Your task to perform on an android device: change the clock style Image 0: 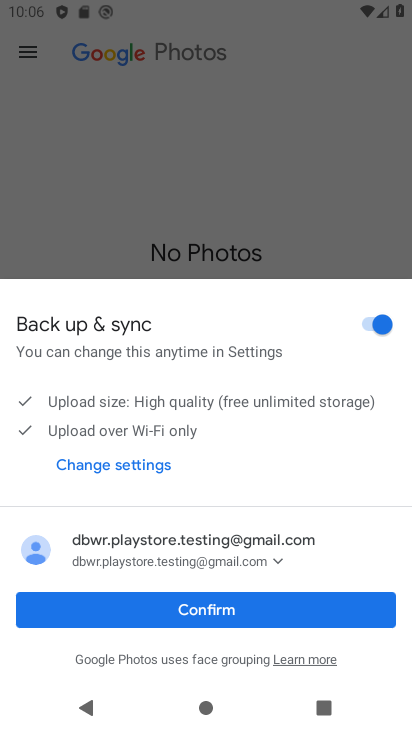
Step 0: press home button
Your task to perform on an android device: change the clock style Image 1: 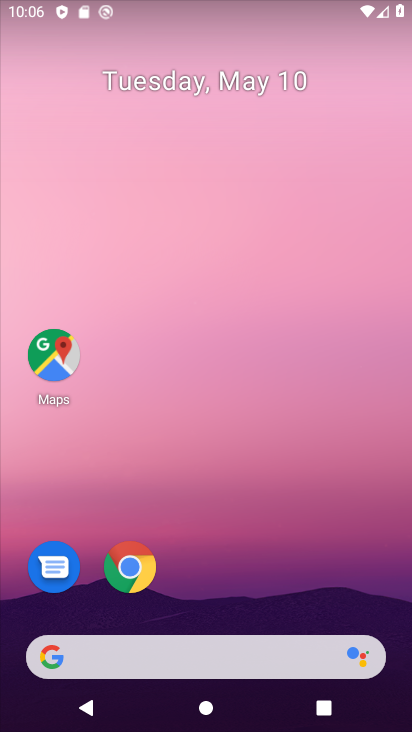
Step 1: drag from (204, 548) to (306, 30)
Your task to perform on an android device: change the clock style Image 2: 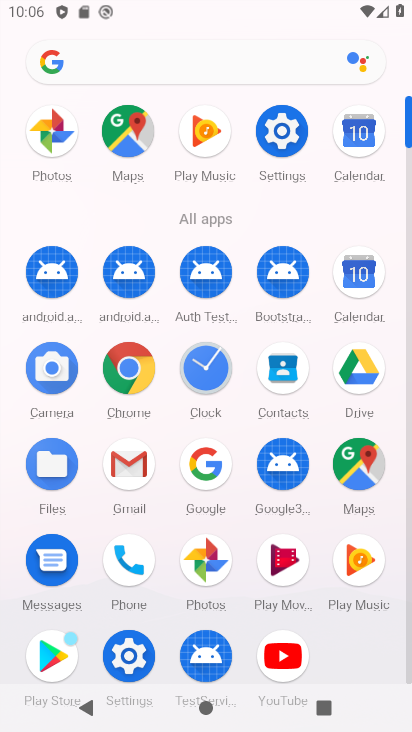
Step 2: click (196, 363)
Your task to perform on an android device: change the clock style Image 3: 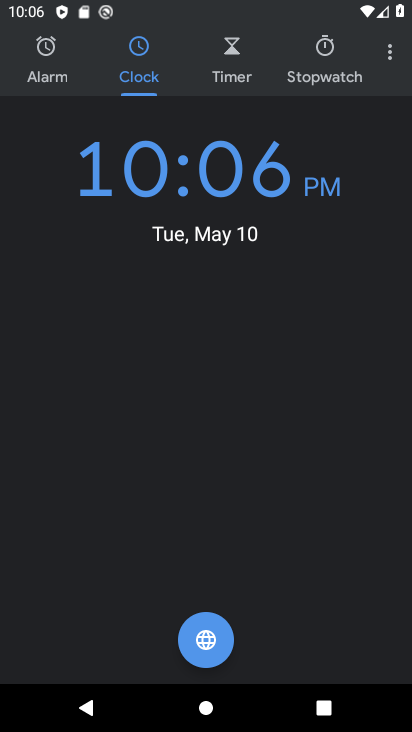
Step 3: click (390, 47)
Your task to perform on an android device: change the clock style Image 4: 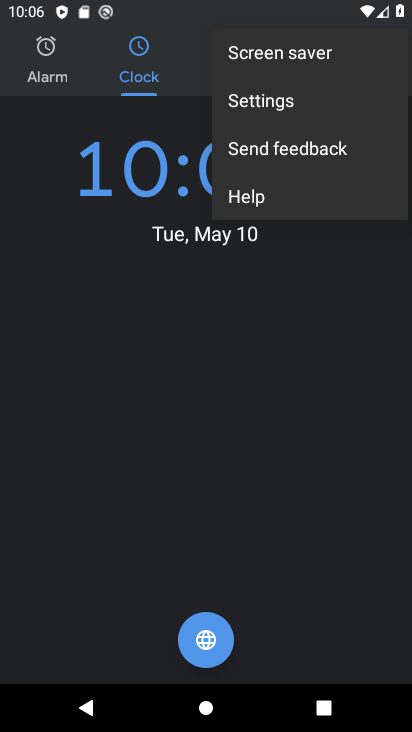
Step 4: click (267, 111)
Your task to perform on an android device: change the clock style Image 5: 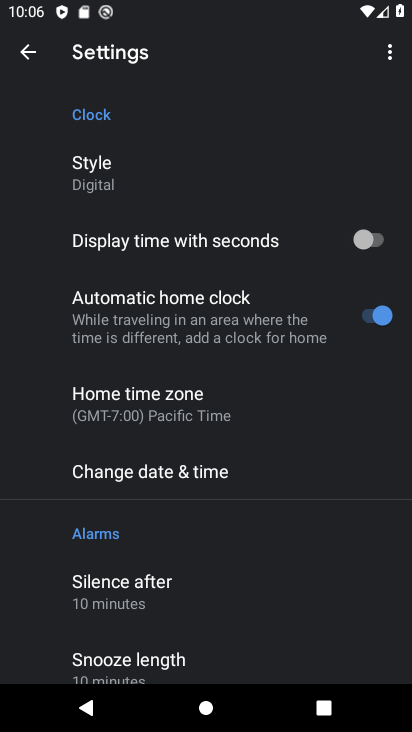
Step 5: click (120, 174)
Your task to perform on an android device: change the clock style Image 6: 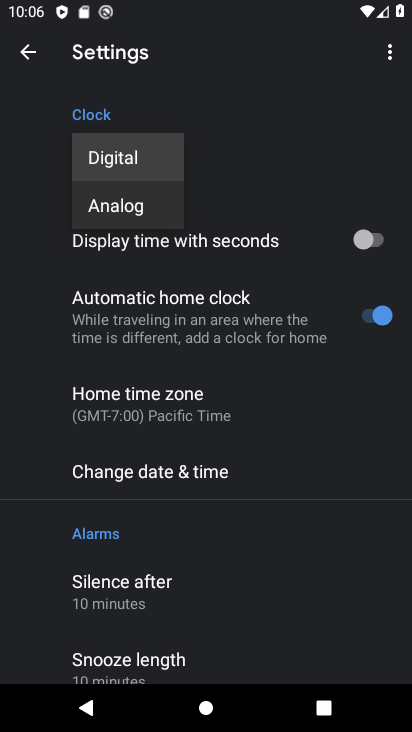
Step 6: click (101, 209)
Your task to perform on an android device: change the clock style Image 7: 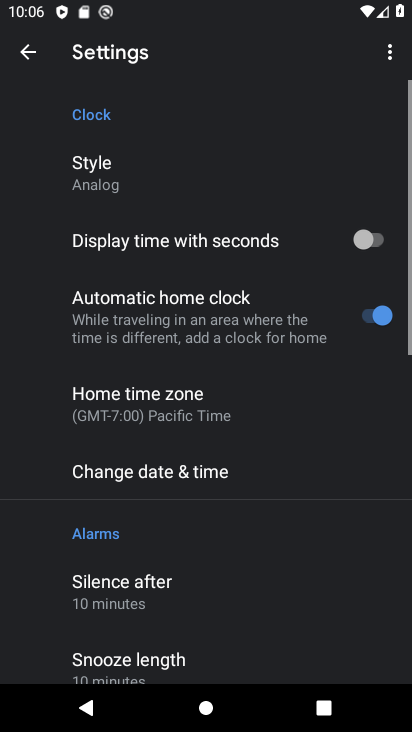
Step 7: task complete